Your task to perform on an android device: open wifi settings Image 0: 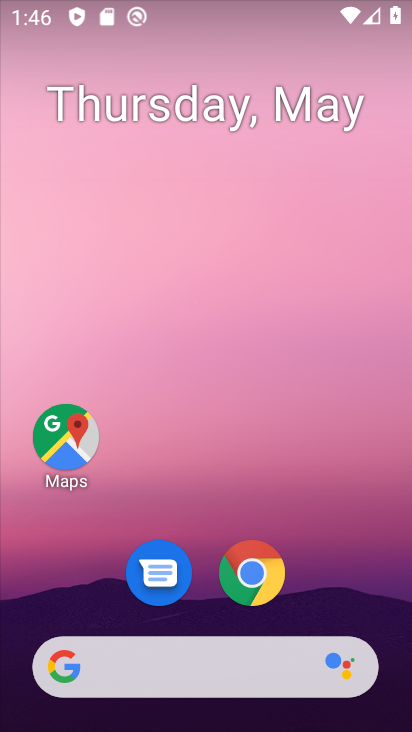
Step 0: drag from (374, 584) to (288, 244)
Your task to perform on an android device: open wifi settings Image 1: 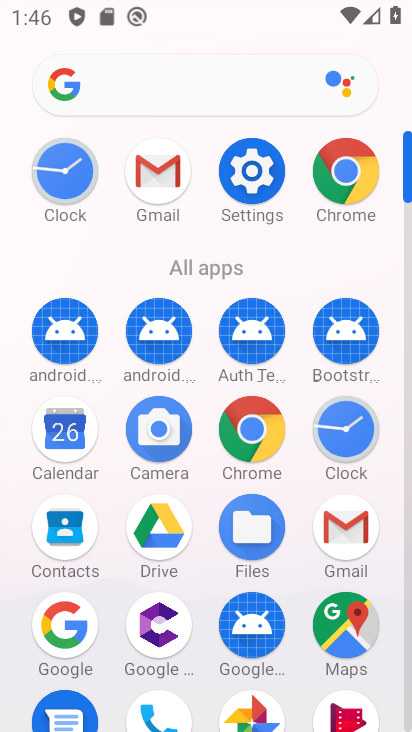
Step 1: click (265, 180)
Your task to perform on an android device: open wifi settings Image 2: 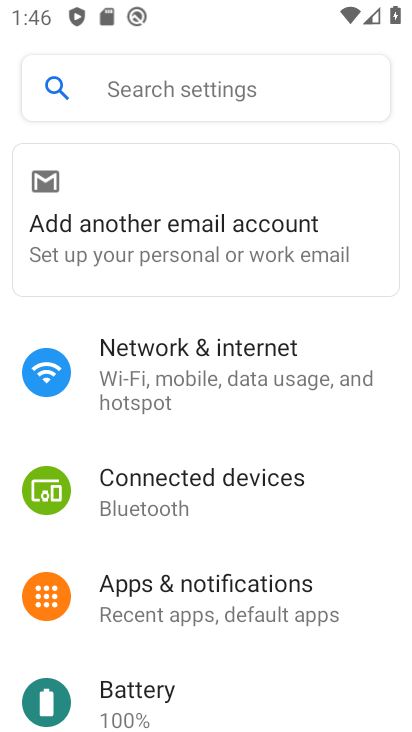
Step 2: click (248, 381)
Your task to perform on an android device: open wifi settings Image 3: 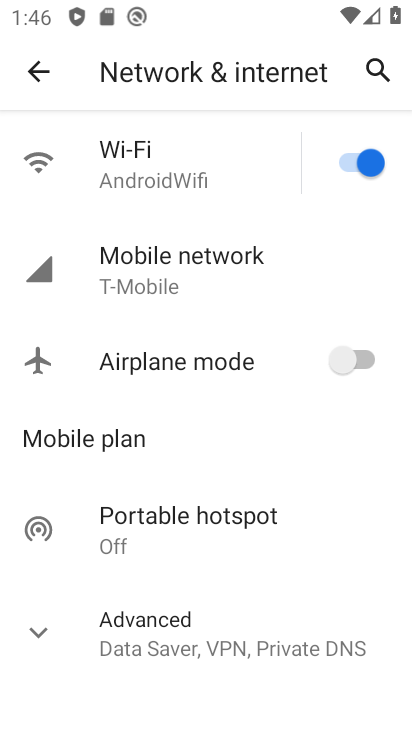
Step 3: click (172, 176)
Your task to perform on an android device: open wifi settings Image 4: 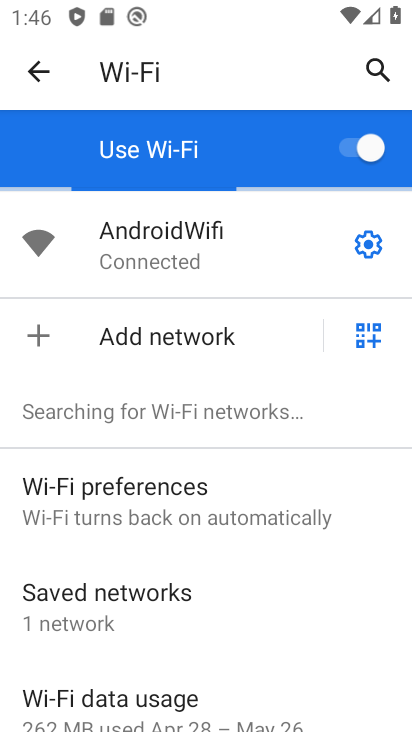
Step 4: task complete